Your task to perform on an android device: turn on notifications settings in the gmail app Image 0: 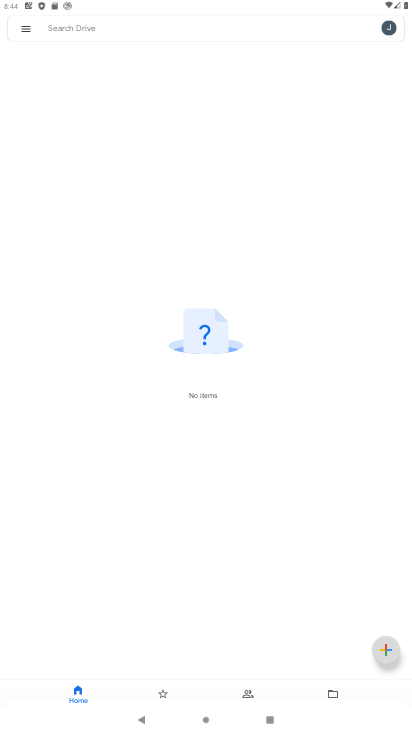
Step 0: click (375, 294)
Your task to perform on an android device: turn on notifications settings in the gmail app Image 1: 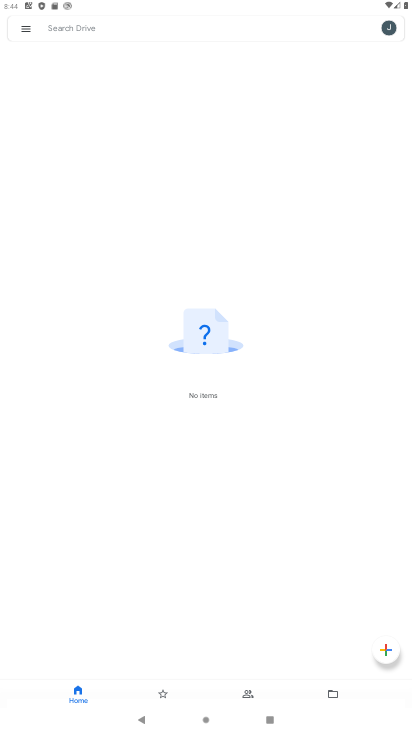
Step 1: press home button
Your task to perform on an android device: turn on notifications settings in the gmail app Image 2: 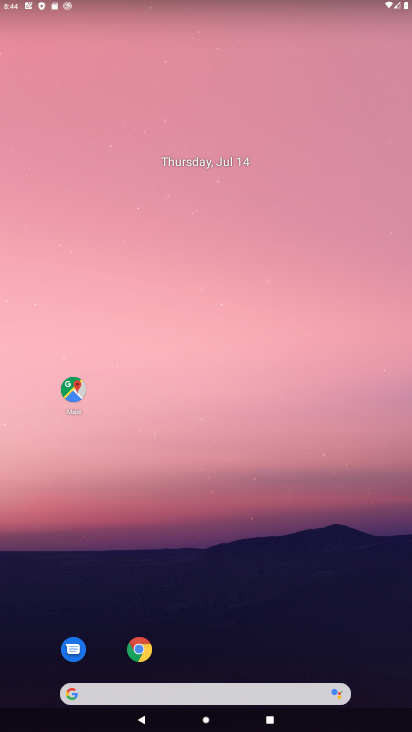
Step 2: drag from (174, 722) to (248, 204)
Your task to perform on an android device: turn on notifications settings in the gmail app Image 3: 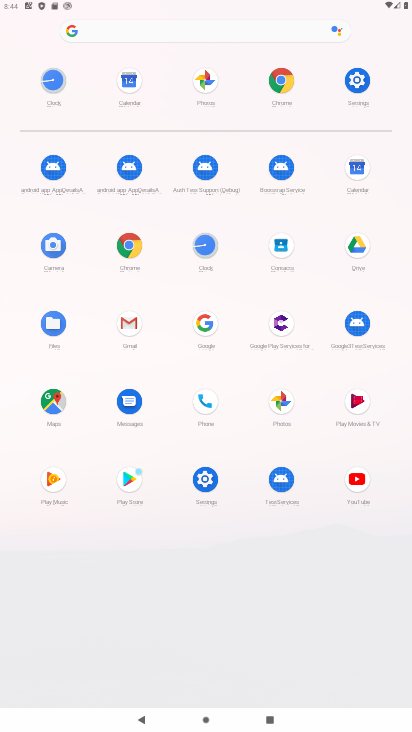
Step 3: click (128, 321)
Your task to perform on an android device: turn on notifications settings in the gmail app Image 4: 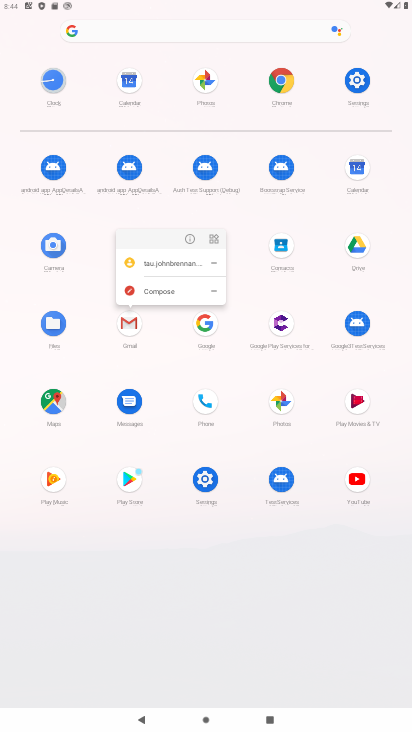
Step 4: click (187, 238)
Your task to perform on an android device: turn on notifications settings in the gmail app Image 5: 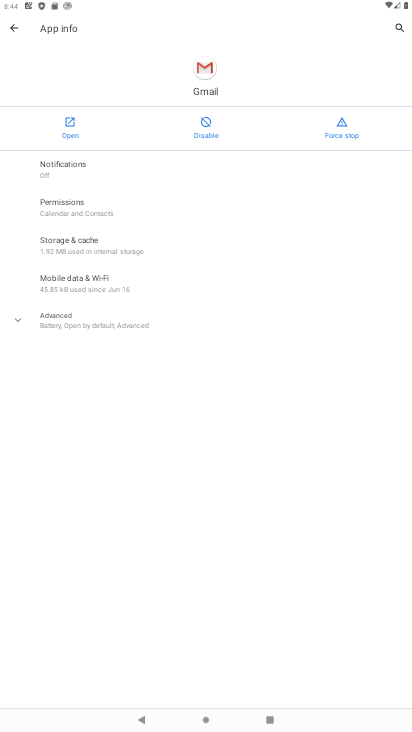
Step 5: click (135, 165)
Your task to perform on an android device: turn on notifications settings in the gmail app Image 6: 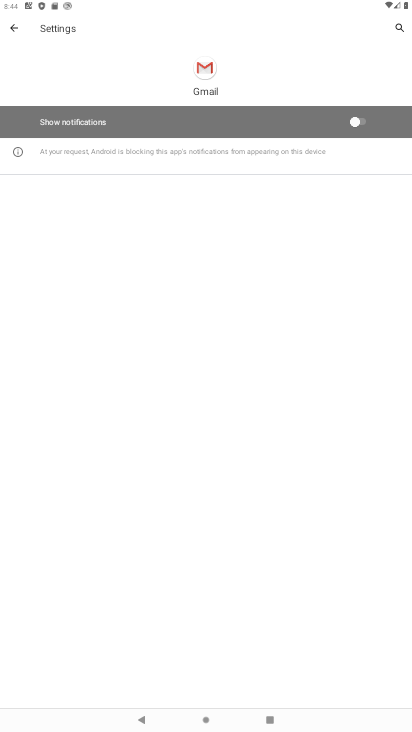
Step 6: click (359, 126)
Your task to perform on an android device: turn on notifications settings in the gmail app Image 7: 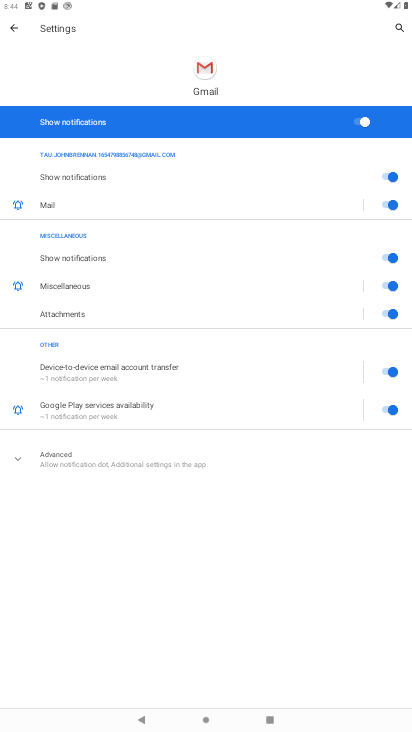
Step 7: task complete